Your task to perform on an android device: remove spam from my inbox in the gmail app Image 0: 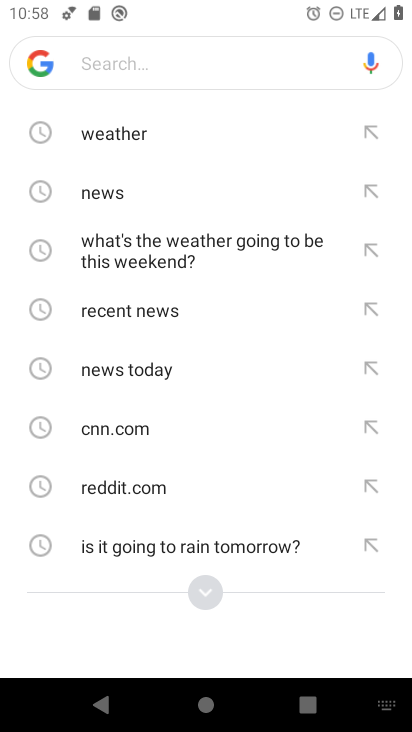
Step 0: press home button
Your task to perform on an android device: remove spam from my inbox in the gmail app Image 1: 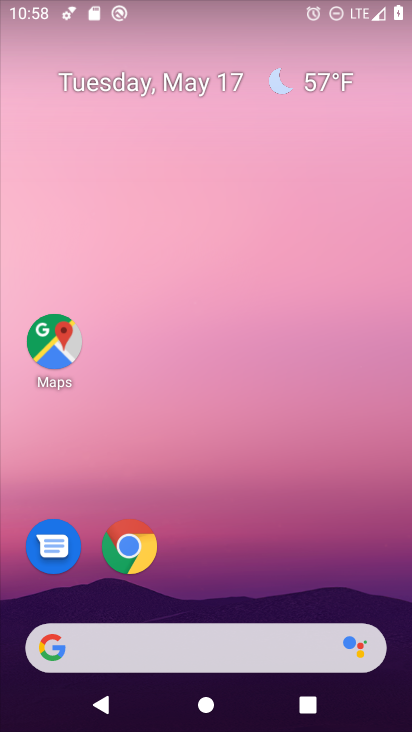
Step 1: drag from (316, 569) to (364, 0)
Your task to perform on an android device: remove spam from my inbox in the gmail app Image 2: 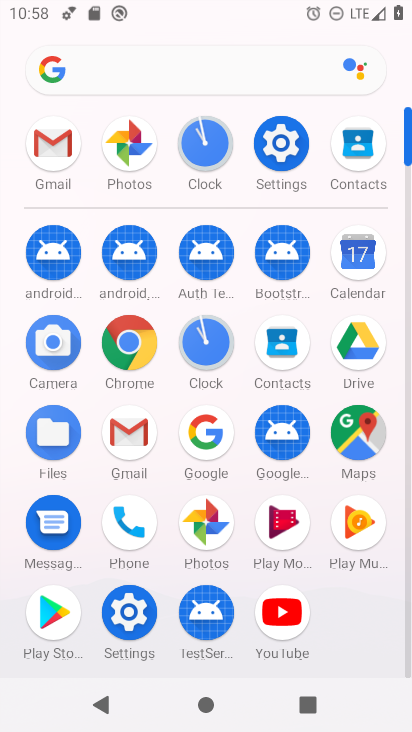
Step 2: click (54, 162)
Your task to perform on an android device: remove spam from my inbox in the gmail app Image 3: 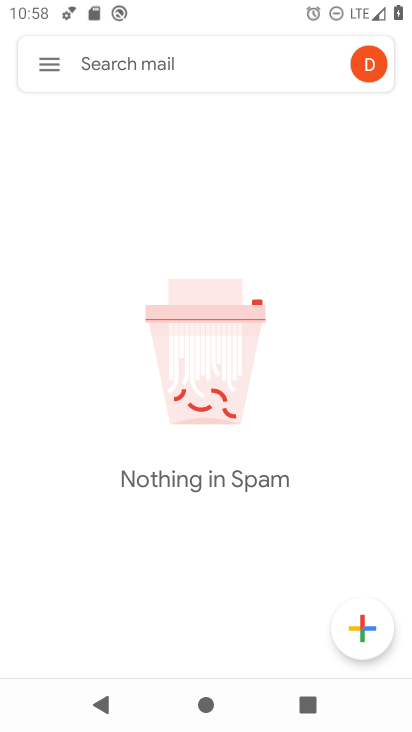
Step 3: task complete